Your task to perform on an android device: open a new tab in the chrome app Image 0: 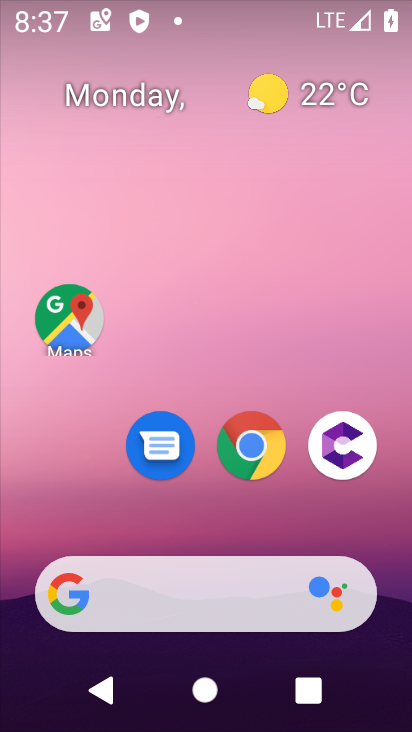
Step 0: click (241, 439)
Your task to perform on an android device: open a new tab in the chrome app Image 1: 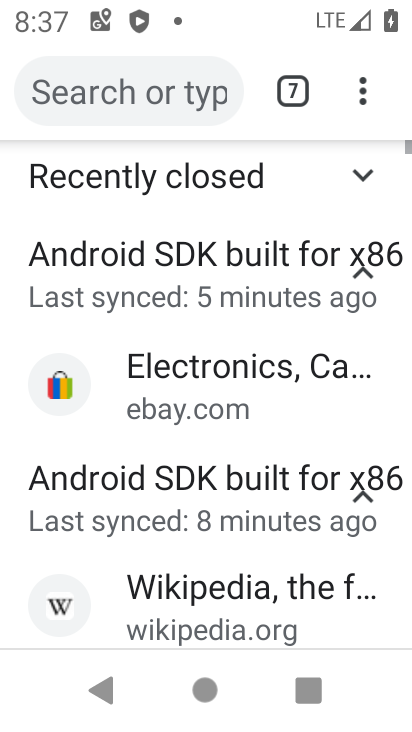
Step 1: click (298, 94)
Your task to perform on an android device: open a new tab in the chrome app Image 2: 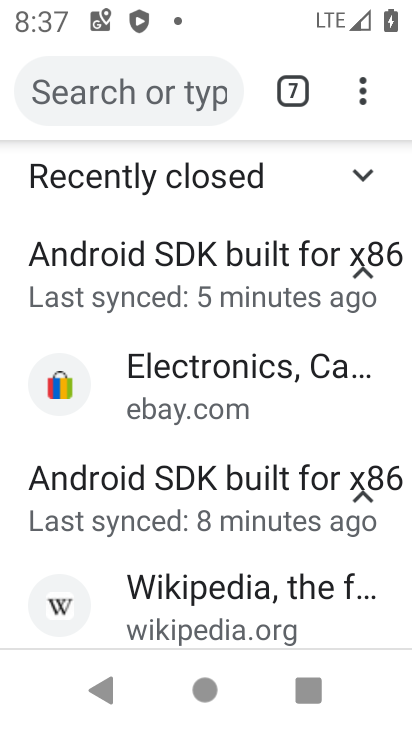
Step 2: click (303, 94)
Your task to perform on an android device: open a new tab in the chrome app Image 3: 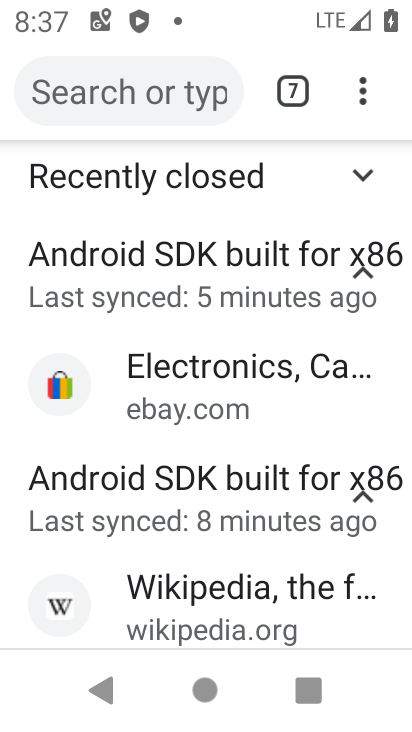
Step 3: click (292, 95)
Your task to perform on an android device: open a new tab in the chrome app Image 4: 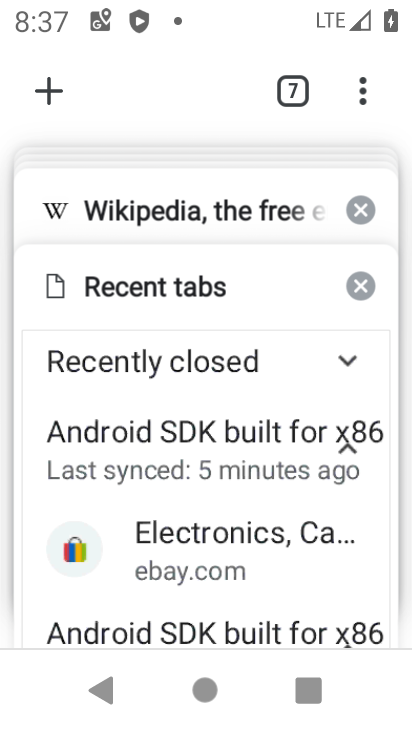
Step 4: click (51, 92)
Your task to perform on an android device: open a new tab in the chrome app Image 5: 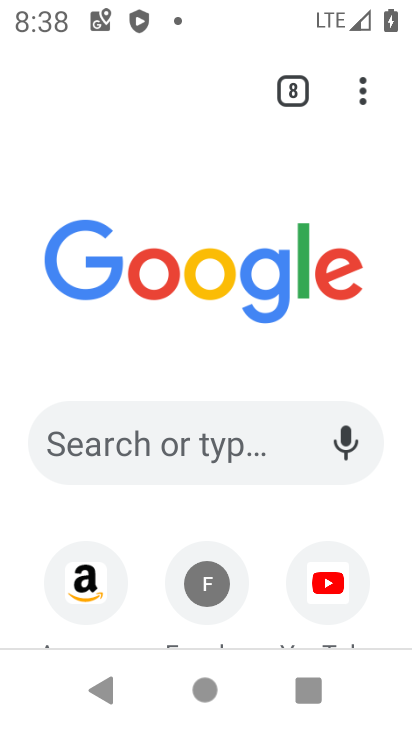
Step 5: task complete